Your task to perform on an android device: Open internet settings Image 0: 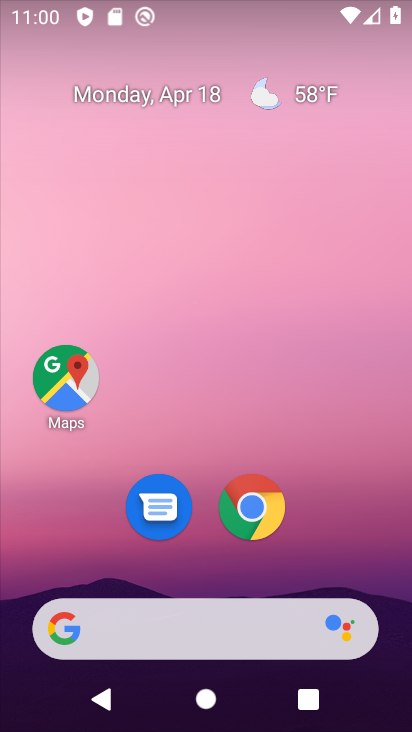
Step 0: drag from (215, 11) to (245, 641)
Your task to perform on an android device: Open internet settings Image 1: 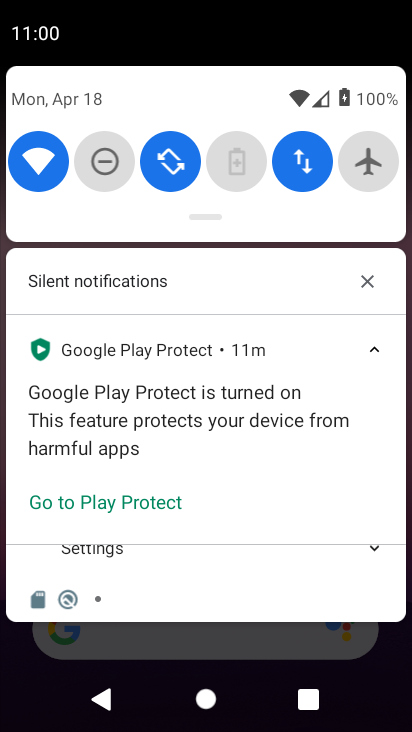
Step 1: drag from (167, 116) to (131, 698)
Your task to perform on an android device: Open internet settings Image 2: 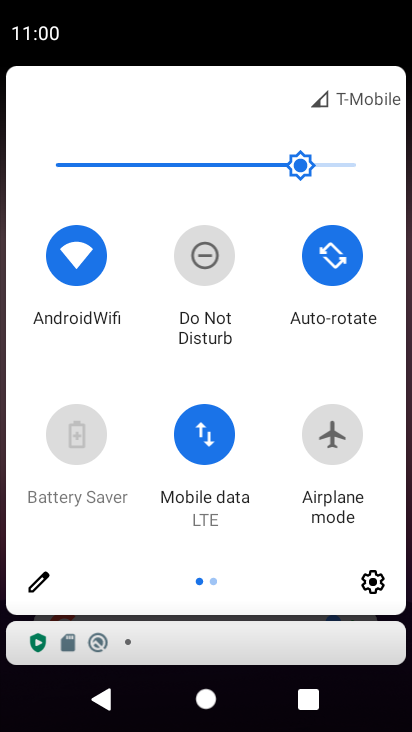
Step 2: click (380, 596)
Your task to perform on an android device: Open internet settings Image 3: 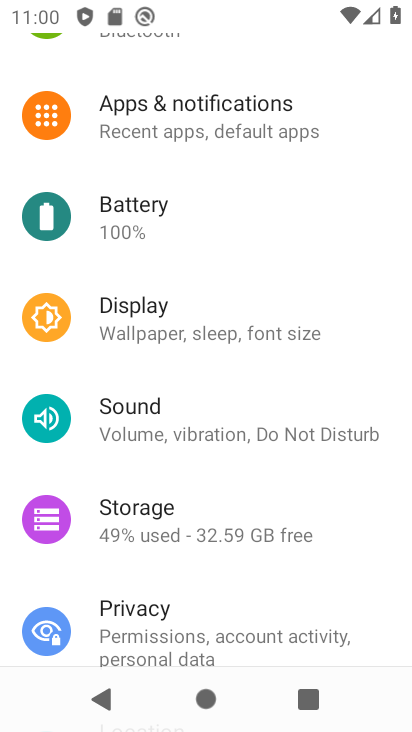
Step 3: drag from (193, 150) to (254, 618)
Your task to perform on an android device: Open internet settings Image 4: 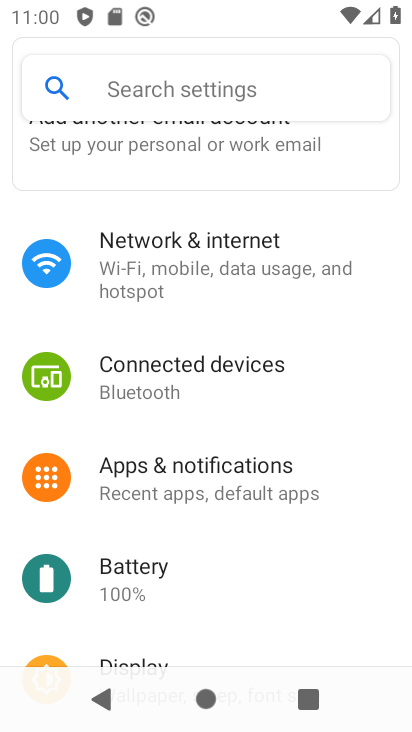
Step 4: click (154, 238)
Your task to perform on an android device: Open internet settings Image 5: 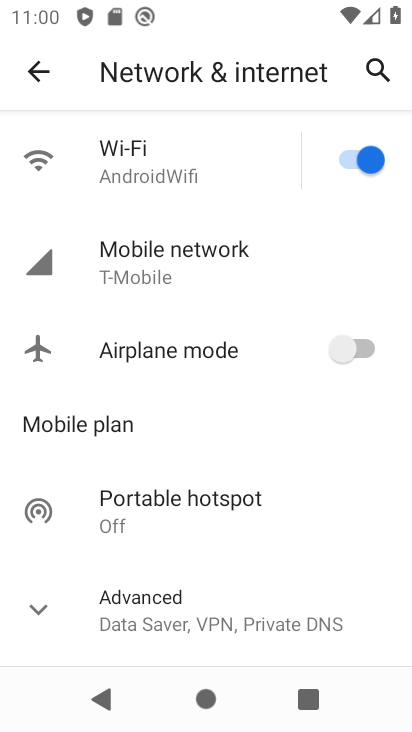
Step 5: click (154, 238)
Your task to perform on an android device: Open internet settings Image 6: 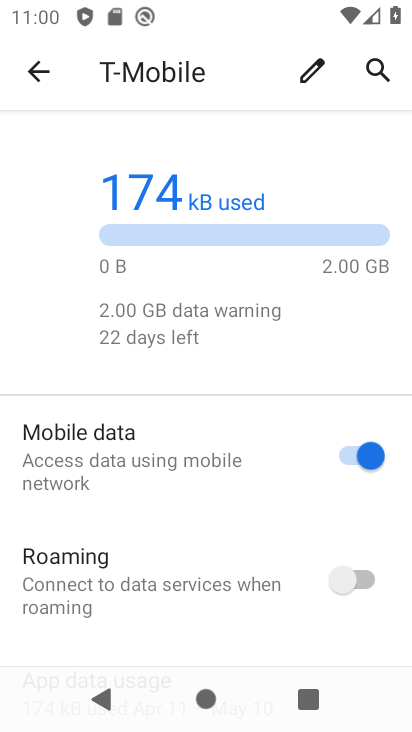
Step 6: task complete